Your task to perform on an android device: turn off picture-in-picture Image 0: 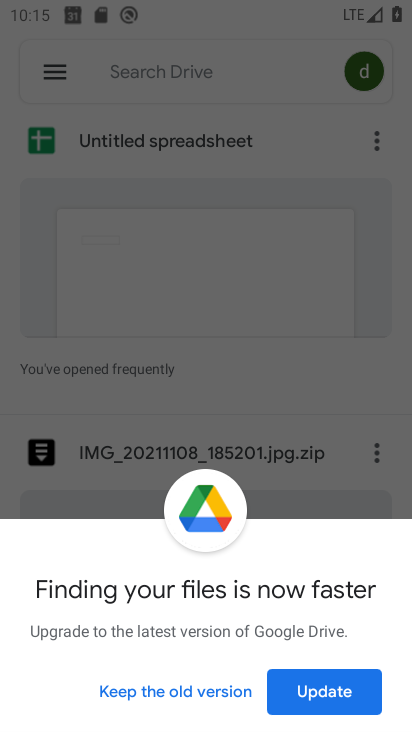
Step 0: press home button
Your task to perform on an android device: turn off picture-in-picture Image 1: 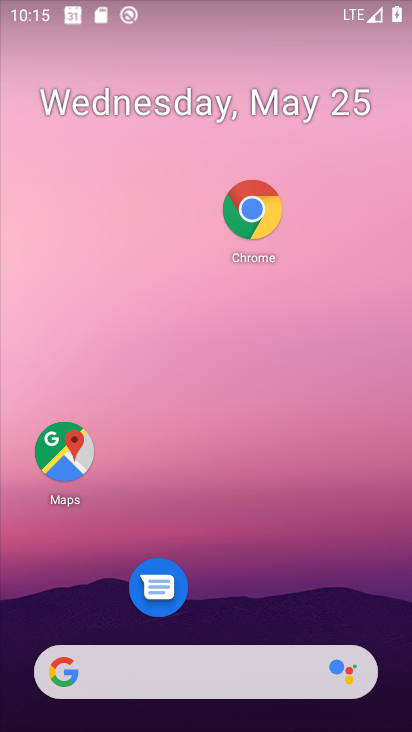
Step 1: click (269, 214)
Your task to perform on an android device: turn off picture-in-picture Image 2: 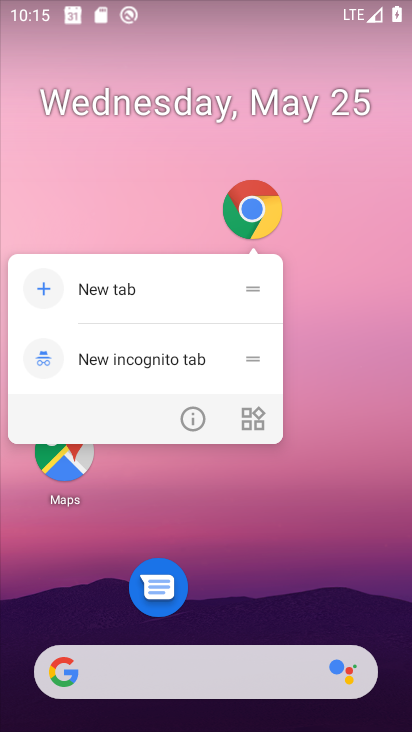
Step 2: click (183, 415)
Your task to perform on an android device: turn off picture-in-picture Image 3: 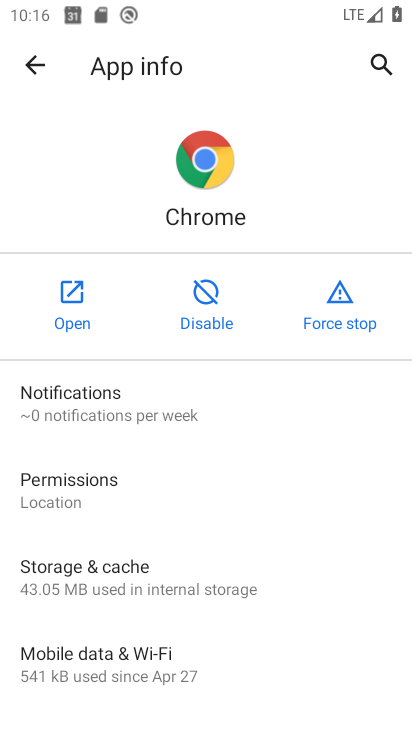
Step 3: drag from (97, 491) to (142, 141)
Your task to perform on an android device: turn off picture-in-picture Image 4: 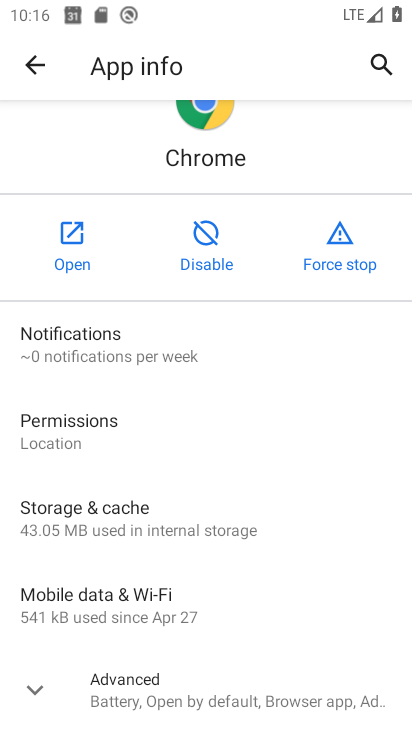
Step 4: drag from (136, 534) to (160, 327)
Your task to perform on an android device: turn off picture-in-picture Image 5: 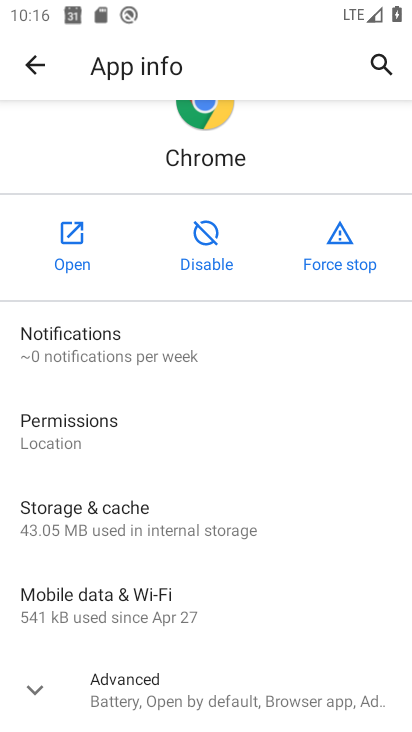
Step 5: click (153, 685)
Your task to perform on an android device: turn off picture-in-picture Image 6: 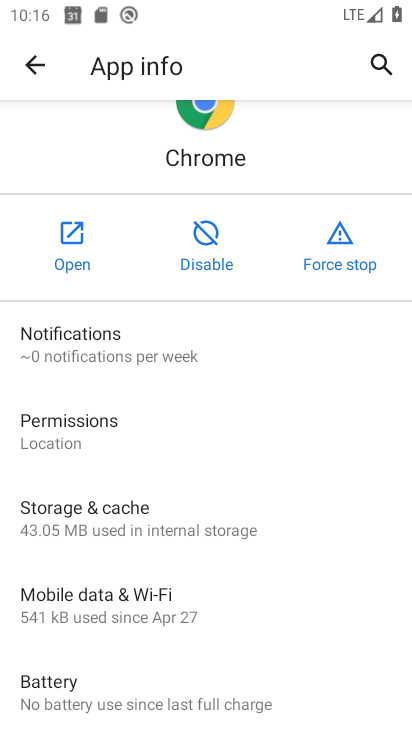
Step 6: drag from (117, 649) to (154, 366)
Your task to perform on an android device: turn off picture-in-picture Image 7: 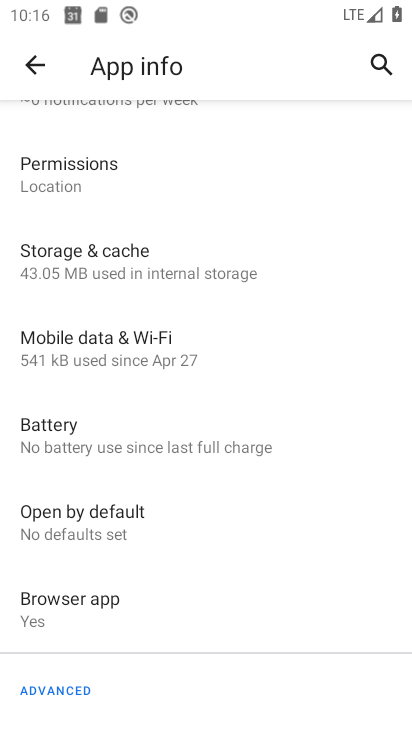
Step 7: drag from (100, 543) to (98, 246)
Your task to perform on an android device: turn off picture-in-picture Image 8: 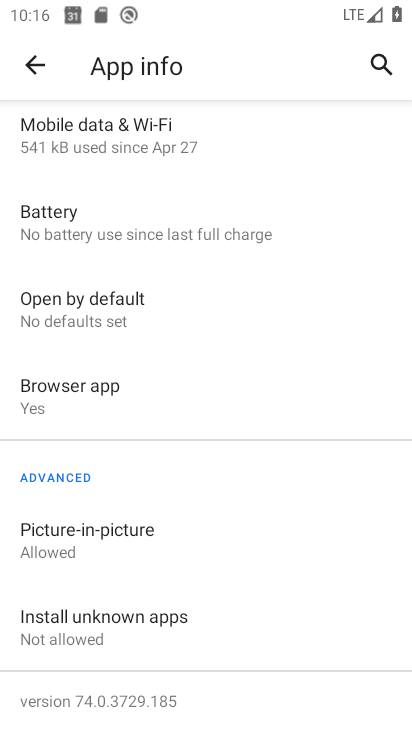
Step 8: click (74, 553)
Your task to perform on an android device: turn off picture-in-picture Image 9: 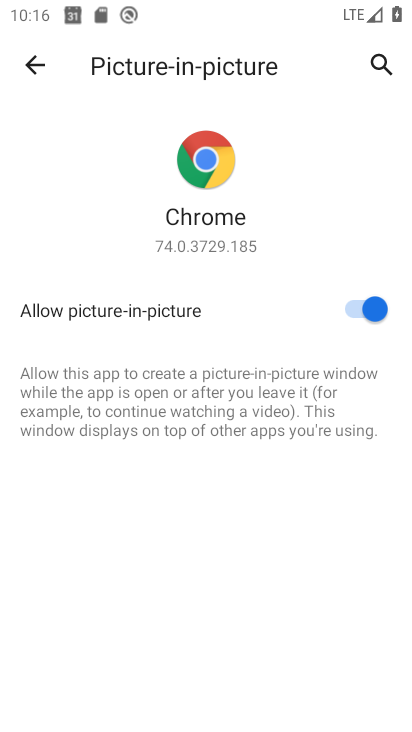
Step 9: click (335, 318)
Your task to perform on an android device: turn off picture-in-picture Image 10: 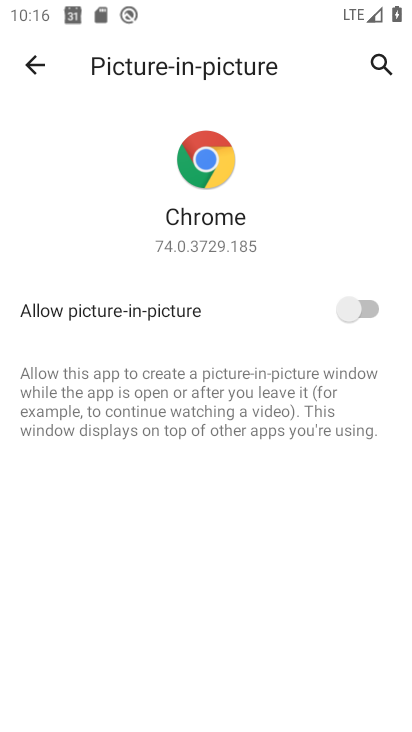
Step 10: task complete